Your task to perform on an android device: Go to internet settings Image 0: 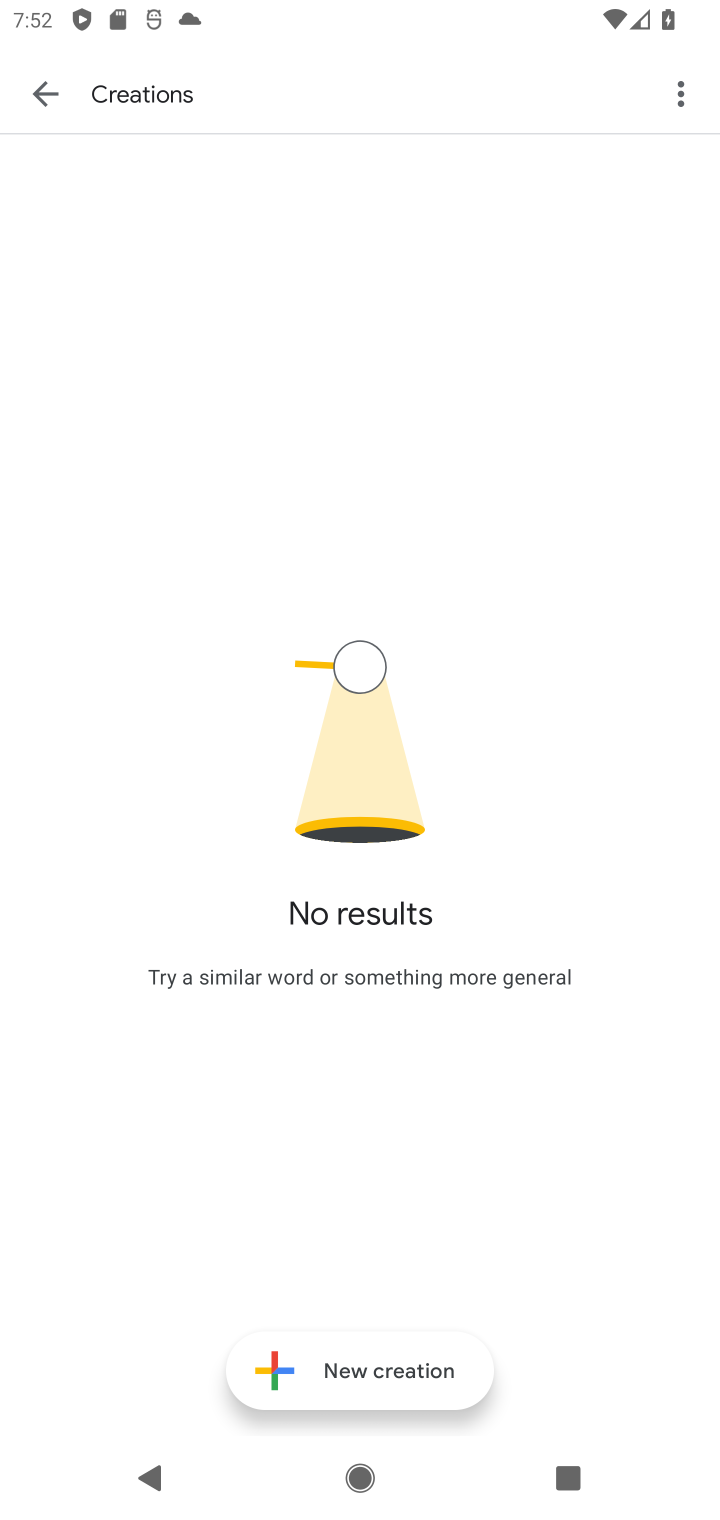
Step 0: press home button
Your task to perform on an android device: Go to internet settings Image 1: 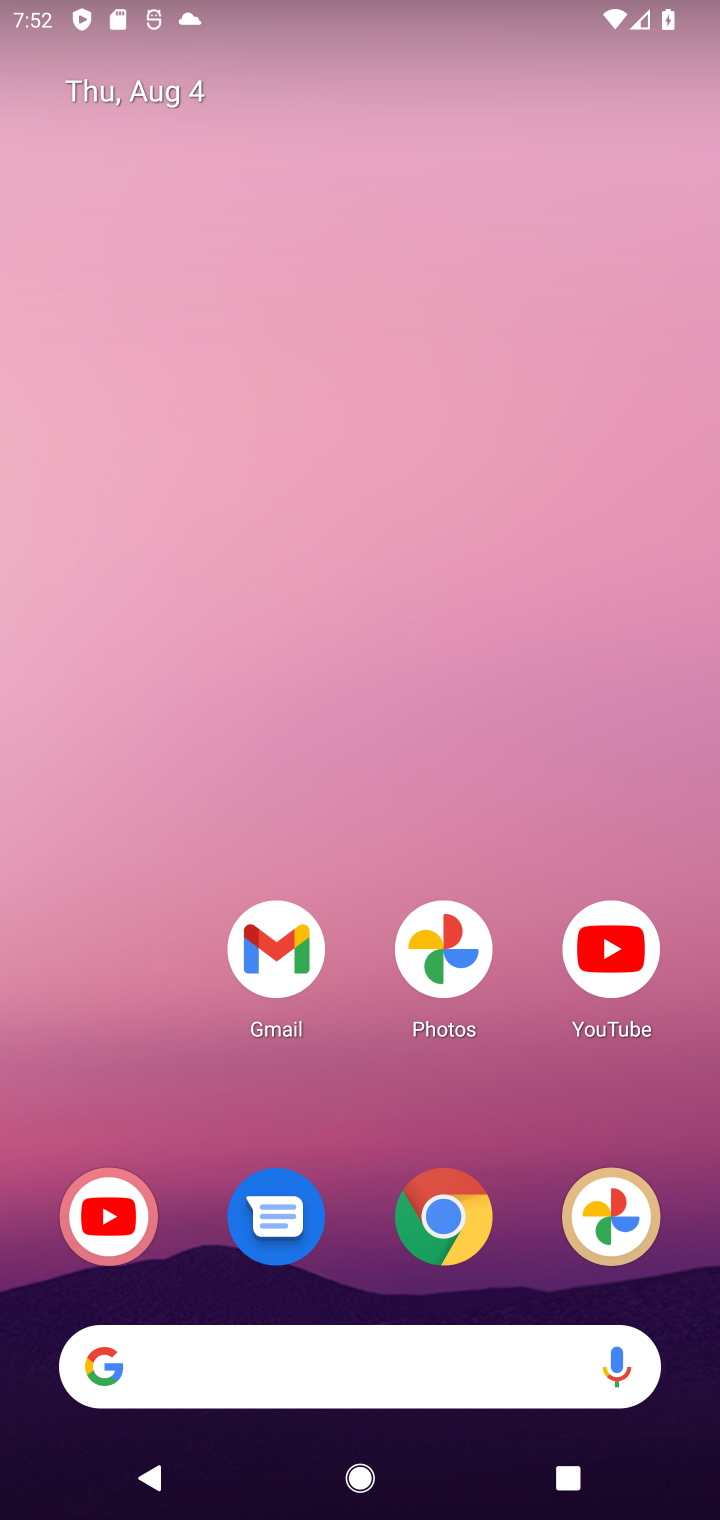
Step 1: drag from (374, 976) to (355, 94)
Your task to perform on an android device: Go to internet settings Image 2: 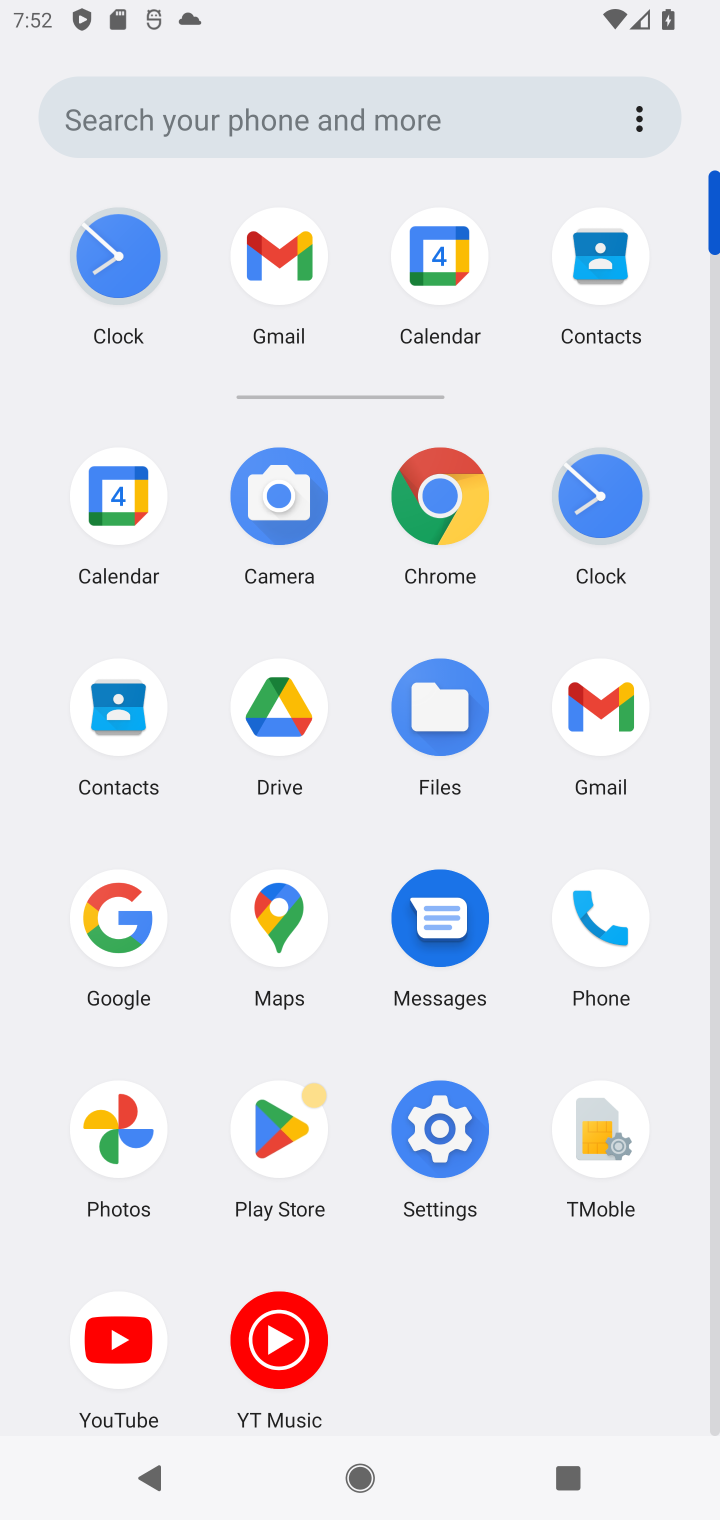
Step 2: click (434, 1129)
Your task to perform on an android device: Go to internet settings Image 3: 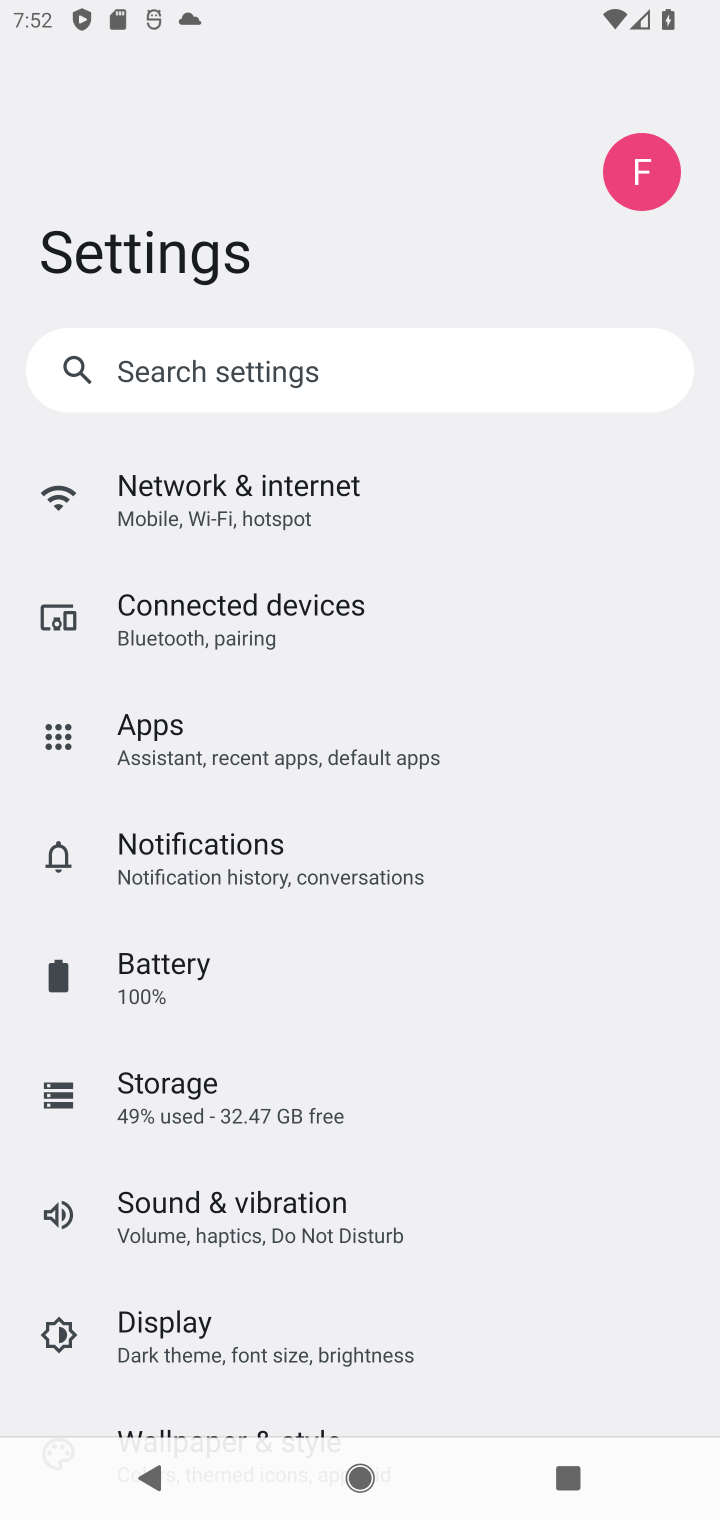
Step 3: click (224, 496)
Your task to perform on an android device: Go to internet settings Image 4: 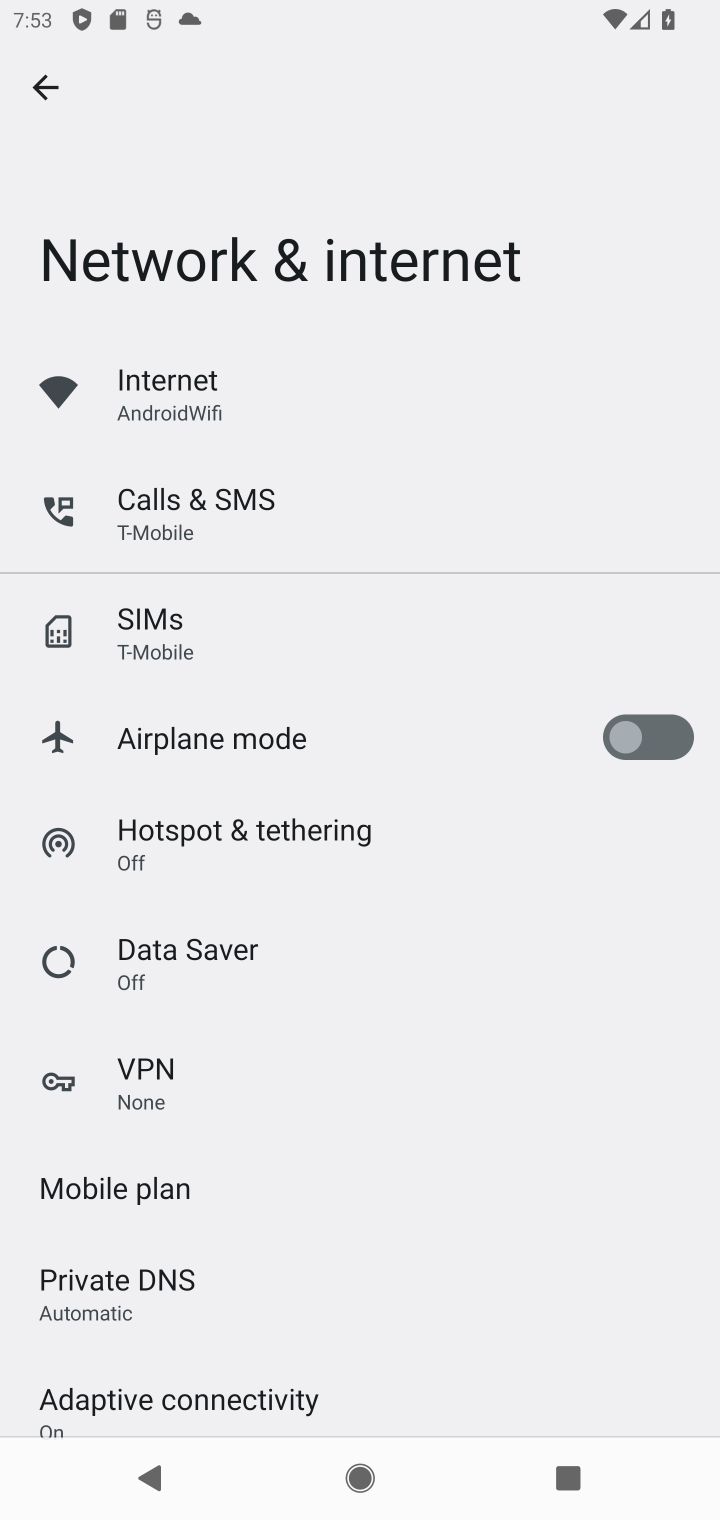
Step 4: click (165, 394)
Your task to perform on an android device: Go to internet settings Image 5: 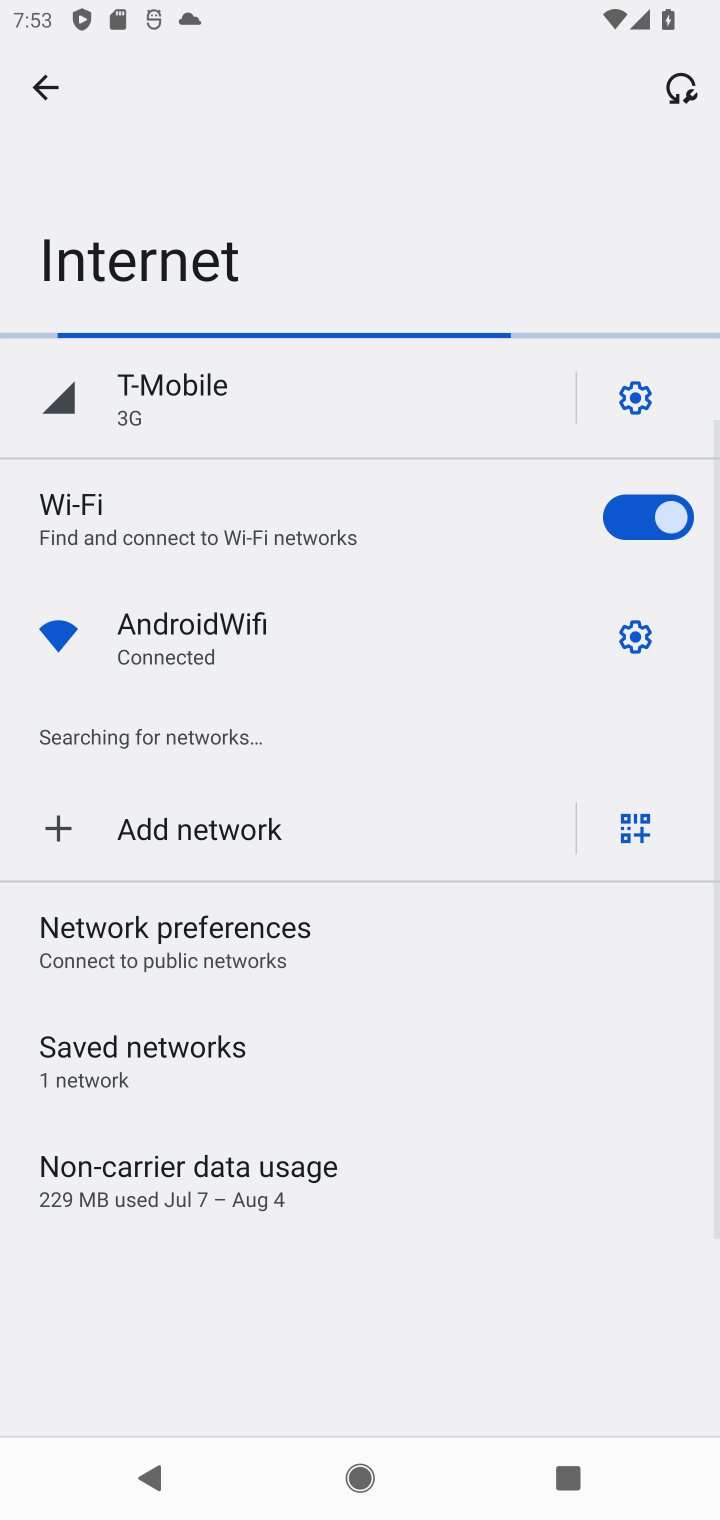
Step 5: task complete